Your task to perform on an android device: set an alarm Image 0: 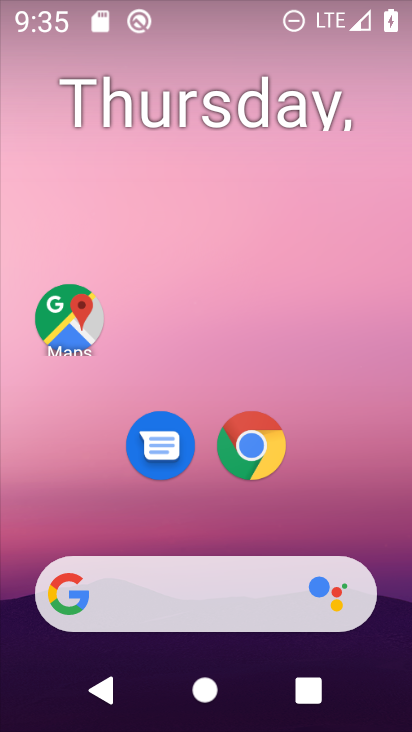
Step 0: drag from (387, 630) to (403, 399)
Your task to perform on an android device: set an alarm Image 1: 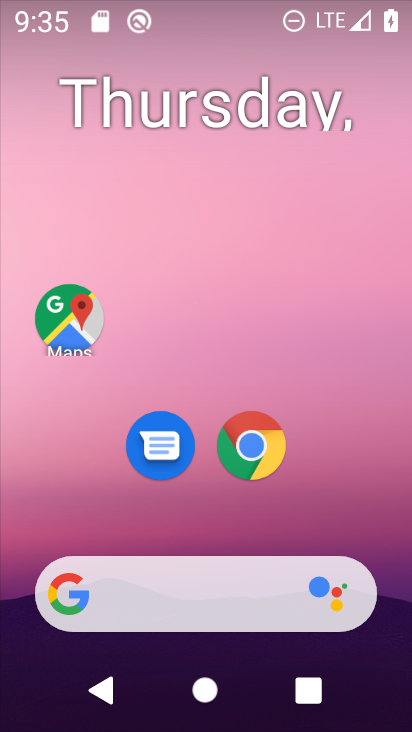
Step 1: drag from (398, 618) to (314, 12)
Your task to perform on an android device: set an alarm Image 2: 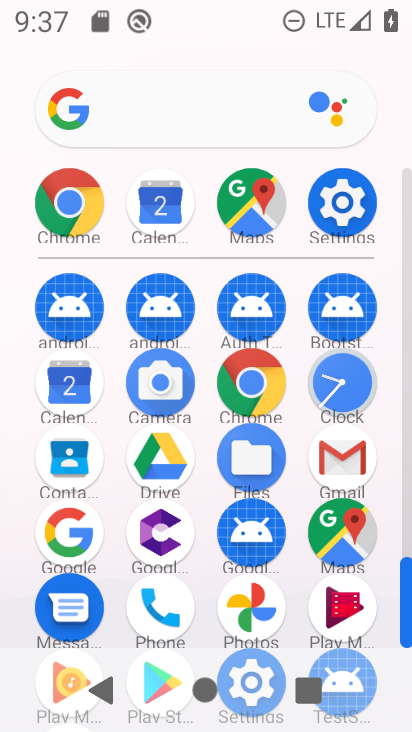
Step 2: click (345, 371)
Your task to perform on an android device: set an alarm Image 3: 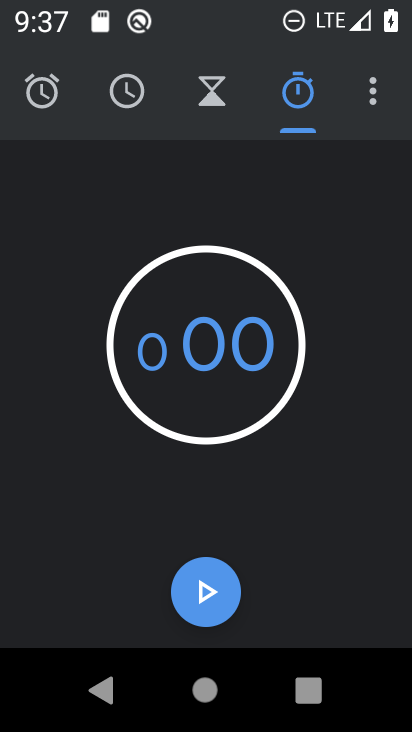
Step 3: click (54, 100)
Your task to perform on an android device: set an alarm Image 4: 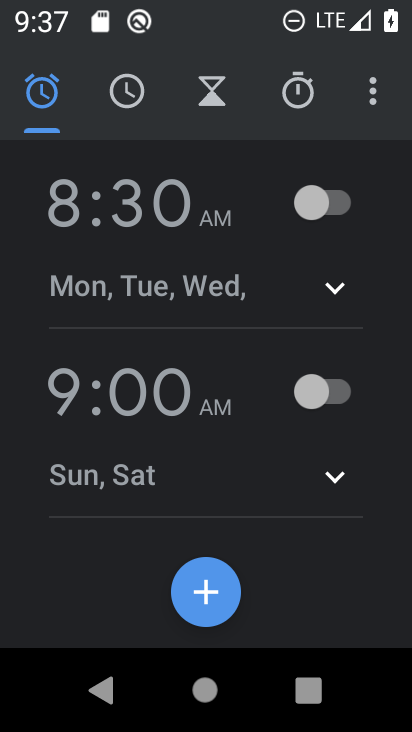
Step 4: click (344, 195)
Your task to perform on an android device: set an alarm Image 5: 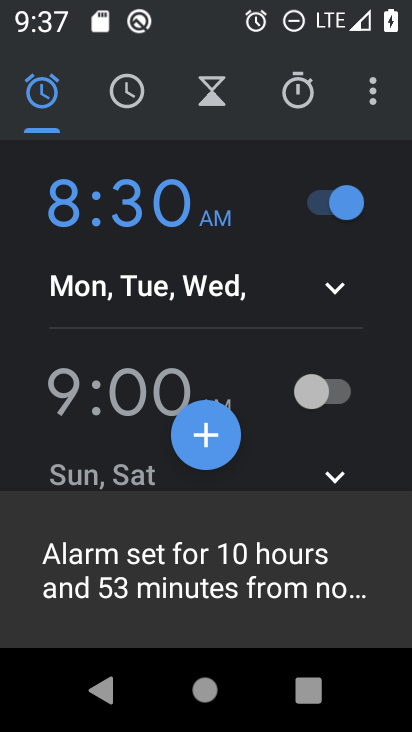
Step 5: task complete